Your task to perform on an android device: Open calendar and show me the first week of next month Image 0: 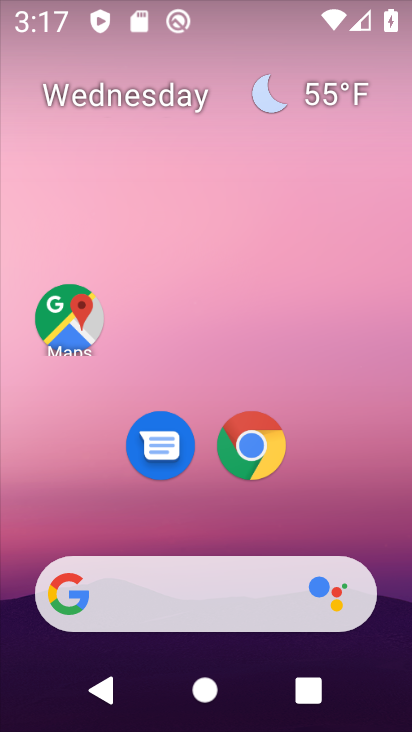
Step 0: drag from (330, 498) to (300, 115)
Your task to perform on an android device: Open calendar and show me the first week of next month Image 1: 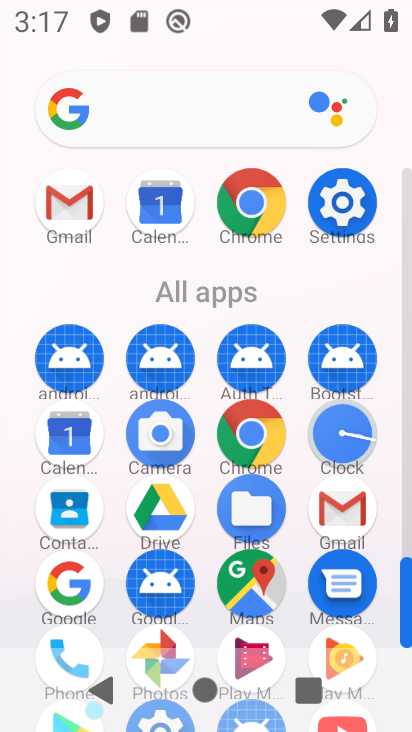
Step 1: click (171, 210)
Your task to perform on an android device: Open calendar and show me the first week of next month Image 2: 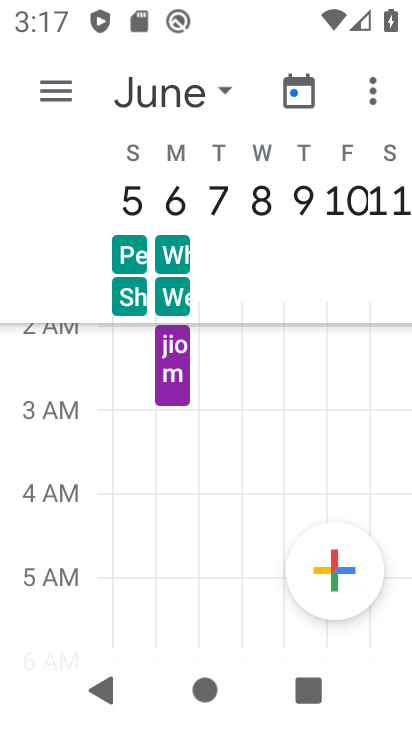
Step 2: click (39, 77)
Your task to perform on an android device: Open calendar and show me the first week of next month Image 3: 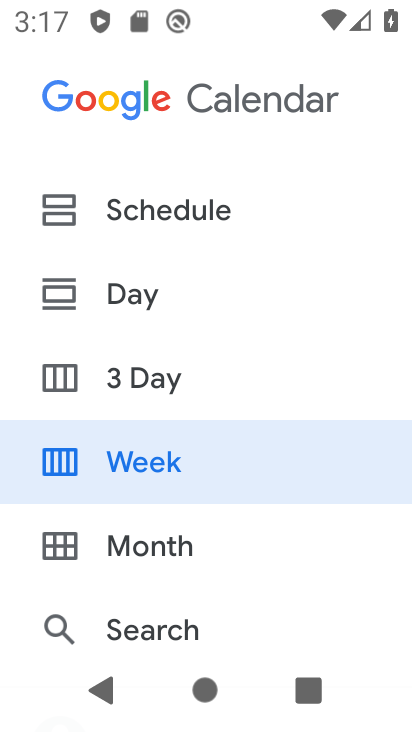
Step 3: click (153, 508)
Your task to perform on an android device: Open calendar and show me the first week of next month Image 4: 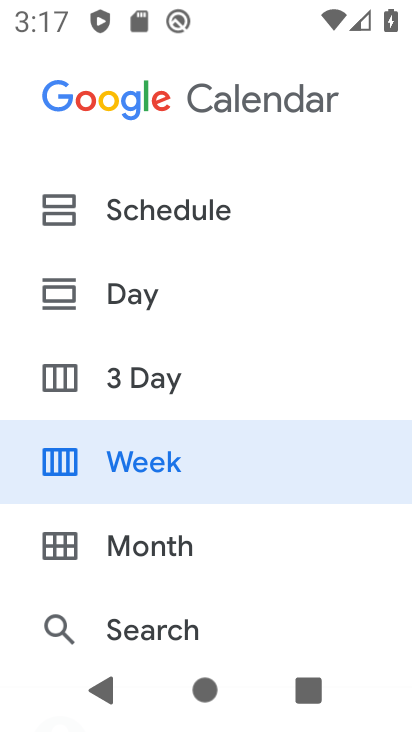
Step 4: click (153, 521)
Your task to perform on an android device: Open calendar and show me the first week of next month Image 5: 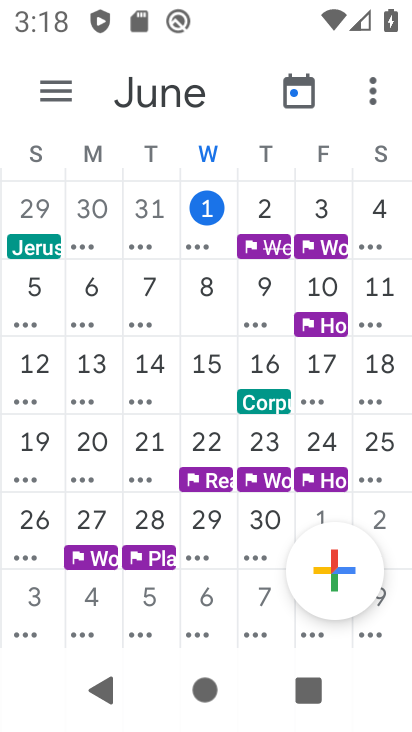
Step 5: drag from (169, 584) to (162, 454)
Your task to perform on an android device: Open calendar and show me the first week of next month Image 6: 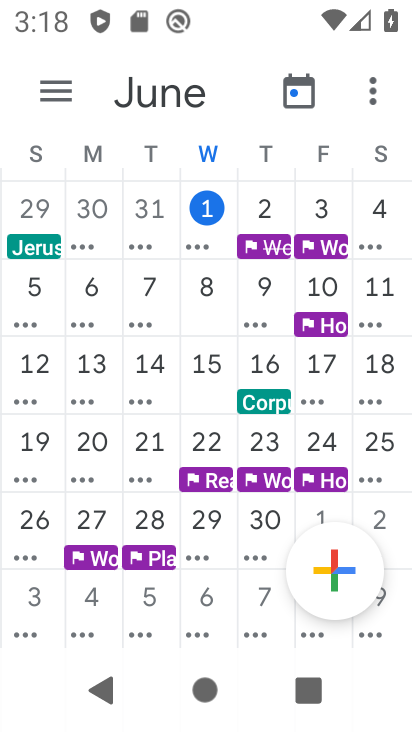
Step 6: click (381, 292)
Your task to perform on an android device: Open calendar and show me the first week of next month Image 7: 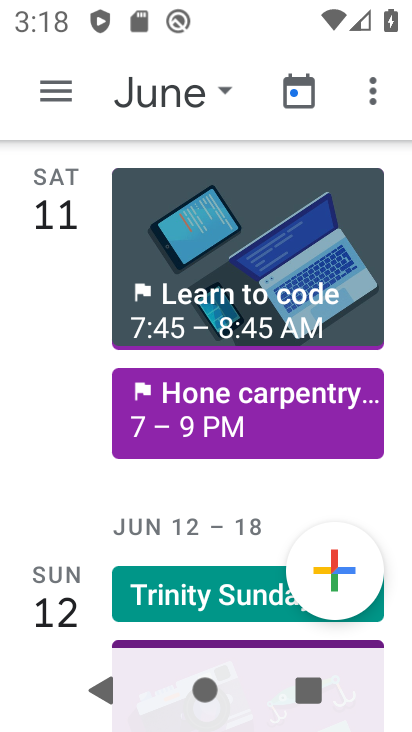
Step 7: click (163, 80)
Your task to perform on an android device: Open calendar and show me the first week of next month Image 8: 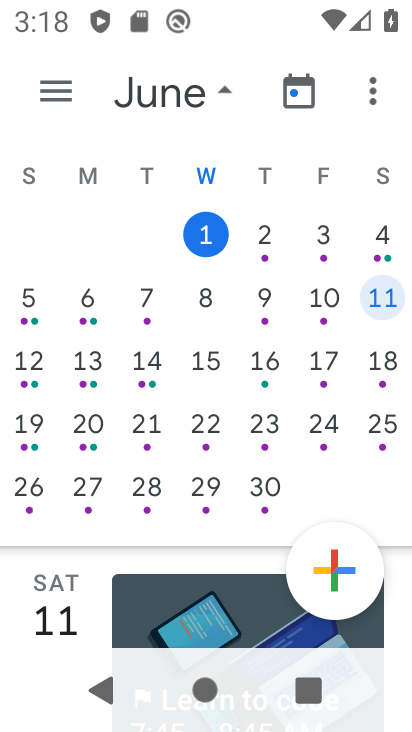
Step 8: click (59, 221)
Your task to perform on an android device: Open calendar and show me the first week of next month Image 9: 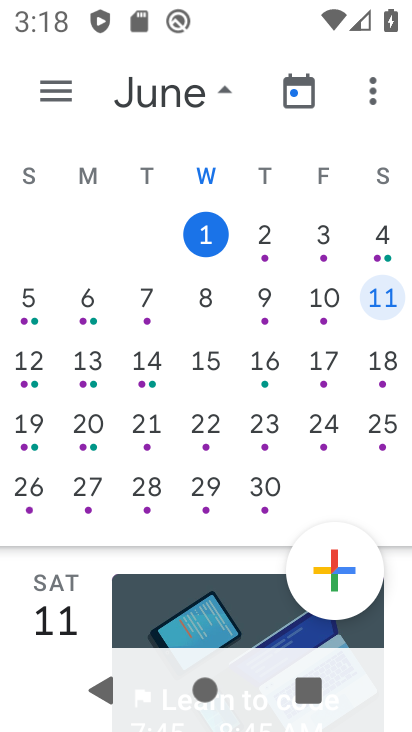
Step 9: task complete